Your task to perform on an android device: Go to Maps Image 0: 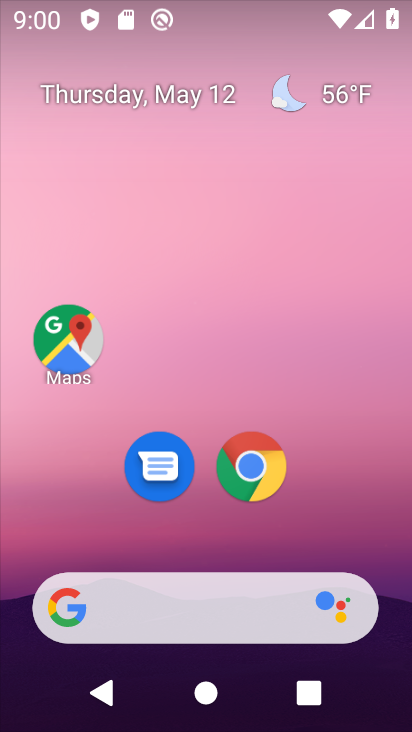
Step 0: click (80, 351)
Your task to perform on an android device: Go to Maps Image 1: 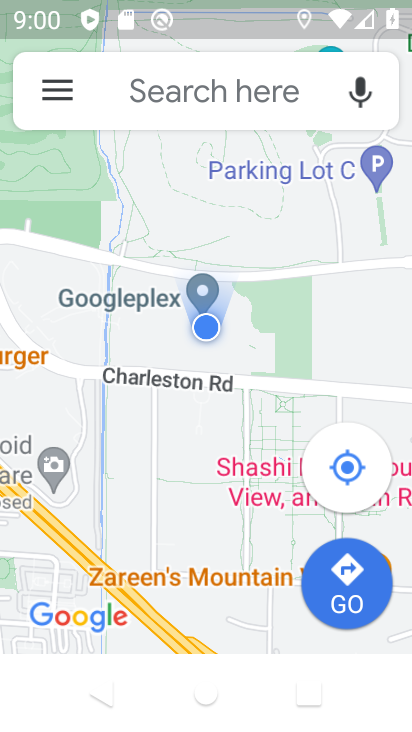
Step 1: task complete